Your task to perform on an android device: open a bookmark in the chrome app Image 0: 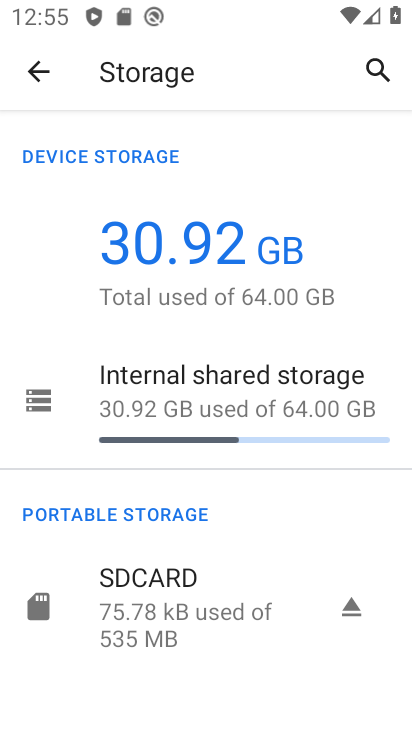
Step 0: press home button
Your task to perform on an android device: open a bookmark in the chrome app Image 1: 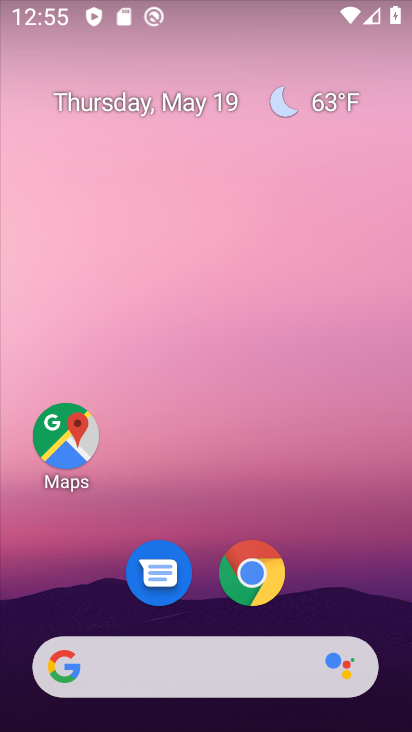
Step 1: drag from (303, 565) to (290, 262)
Your task to perform on an android device: open a bookmark in the chrome app Image 2: 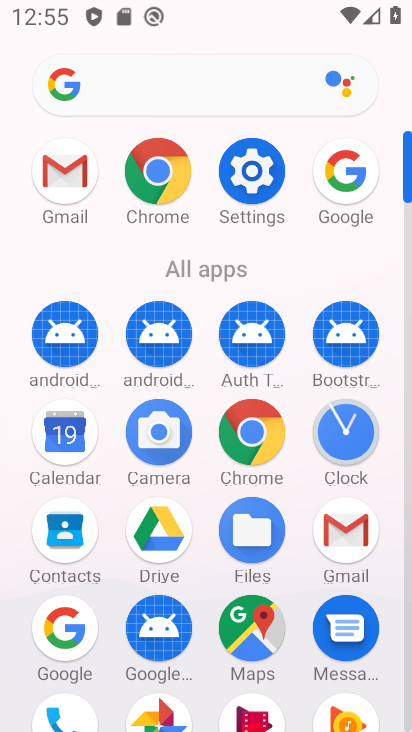
Step 2: click (254, 420)
Your task to perform on an android device: open a bookmark in the chrome app Image 3: 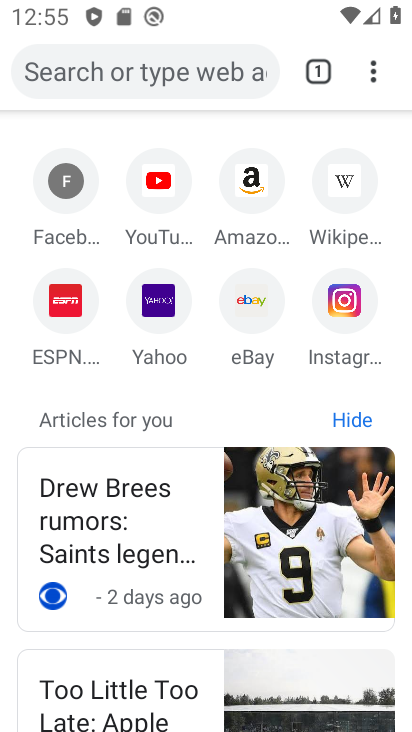
Step 3: click (353, 71)
Your task to perform on an android device: open a bookmark in the chrome app Image 4: 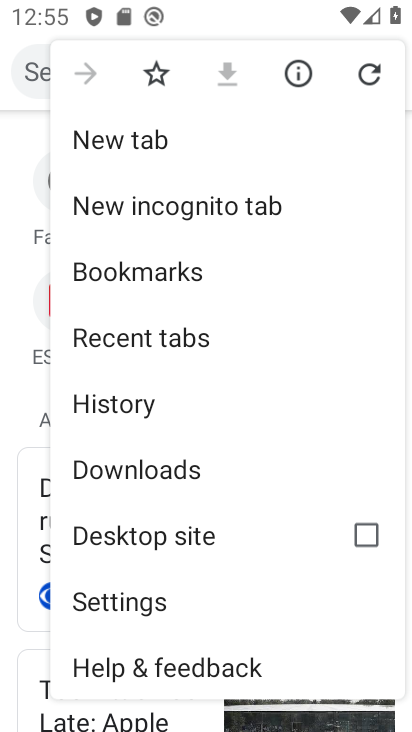
Step 4: click (159, 283)
Your task to perform on an android device: open a bookmark in the chrome app Image 5: 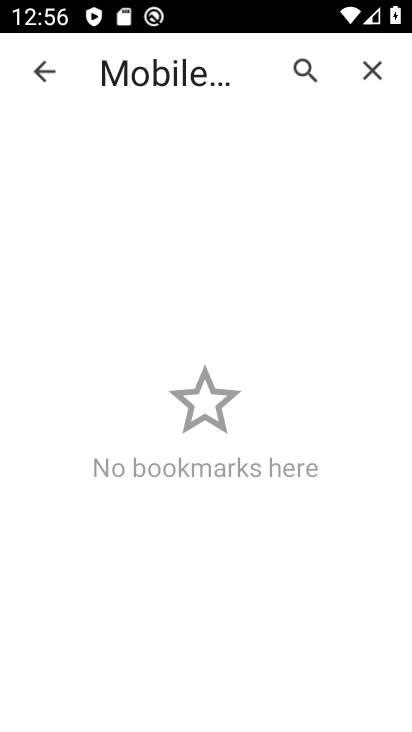
Step 5: task complete